Your task to perform on an android device: set the timer Image 0: 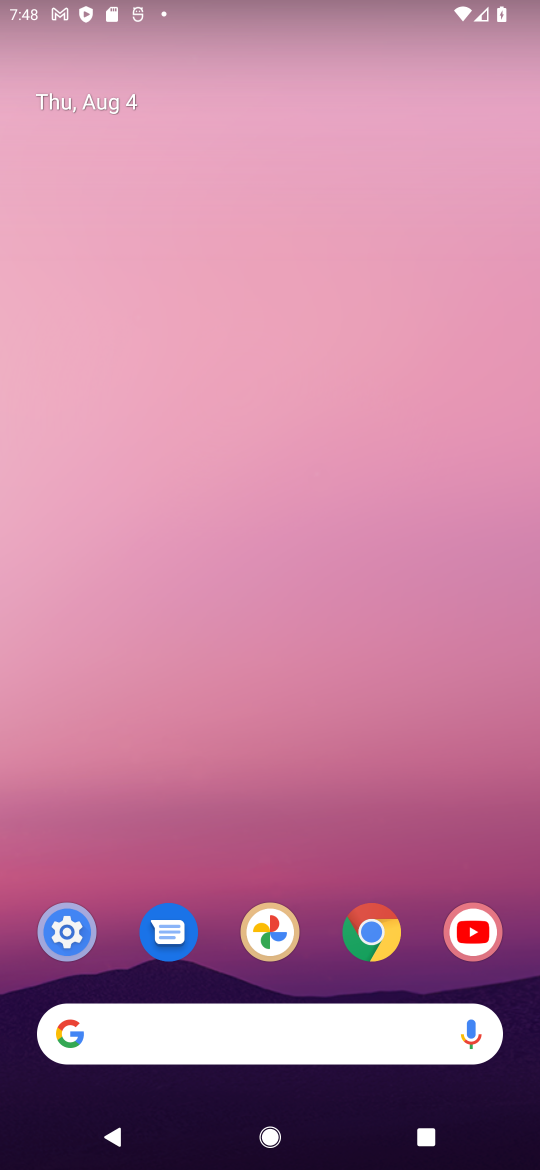
Step 0: drag from (317, 859) to (264, 1)
Your task to perform on an android device: set the timer Image 1: 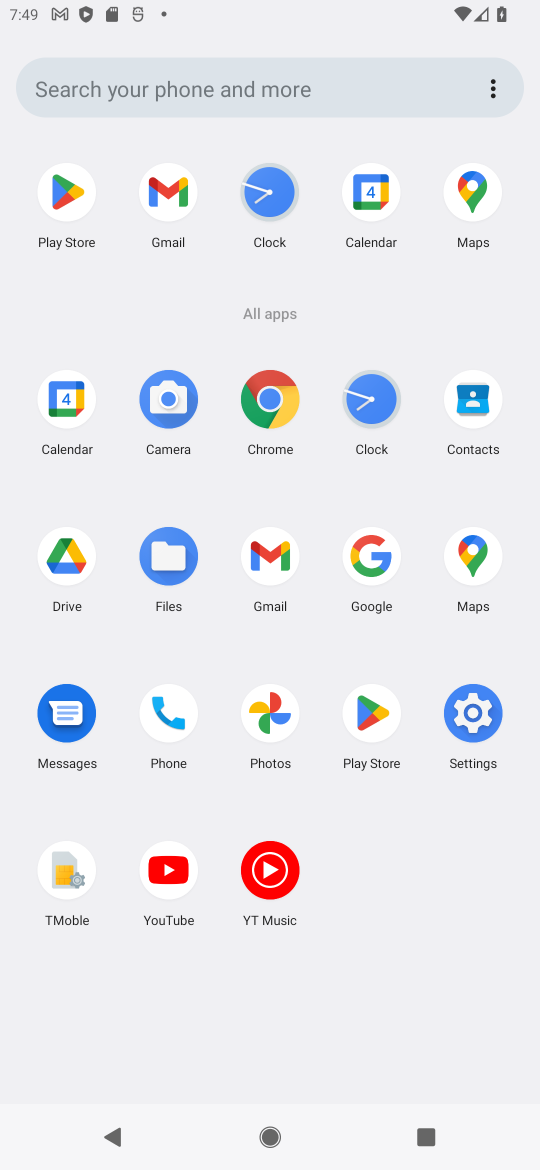
Step 1: click (369, 405)
Your task to perform on an android device: set the timer Image 2: 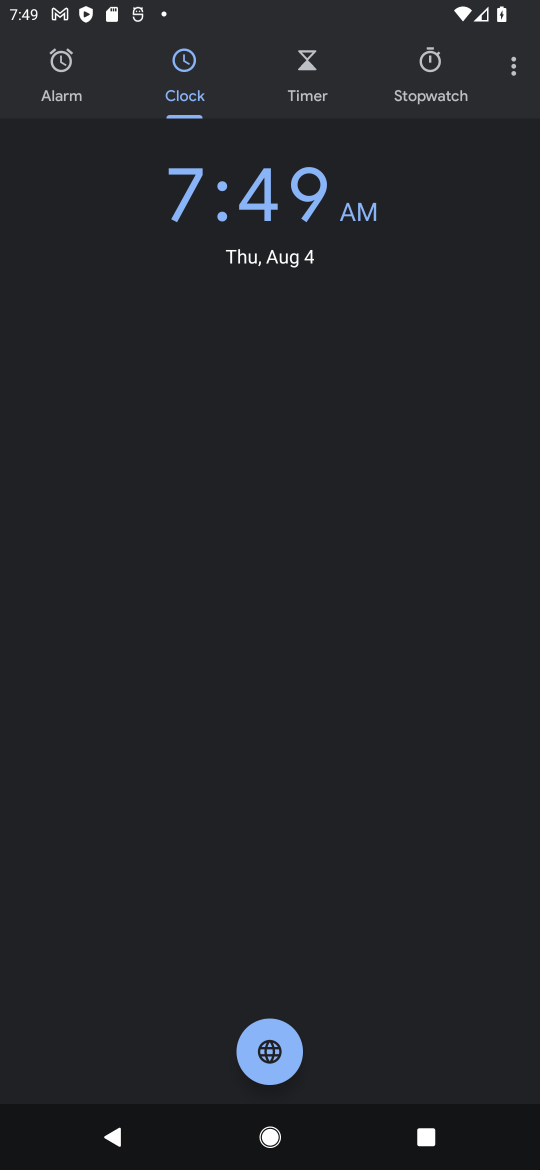
Step 2: click (314, 90)
Your task to perform on an android device: set the timer Image 3: 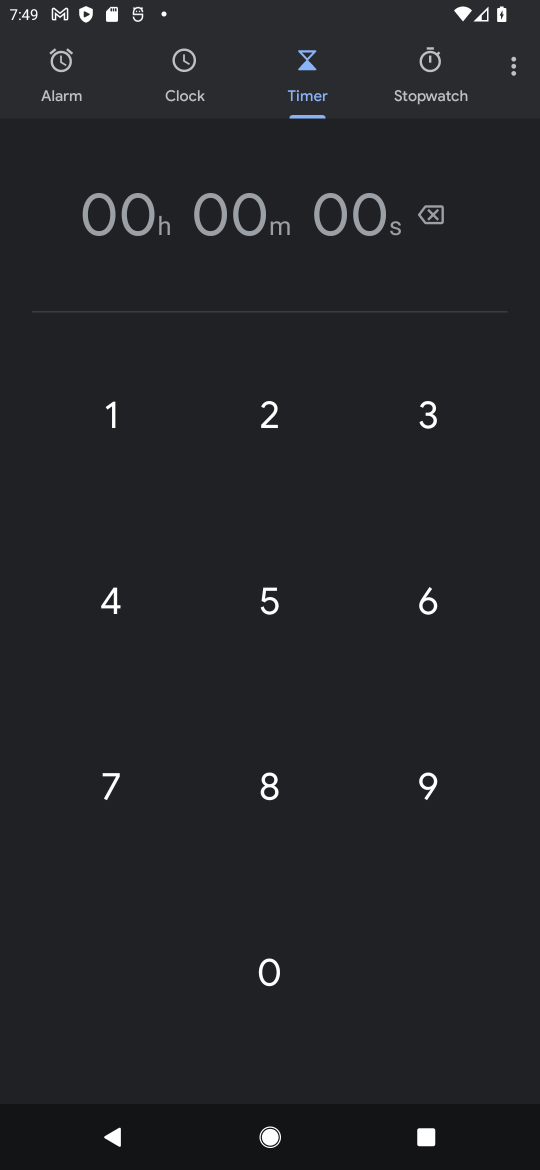
Step 3: click (259, 705)
Your task to perform on an android device: set the timer Image 4: 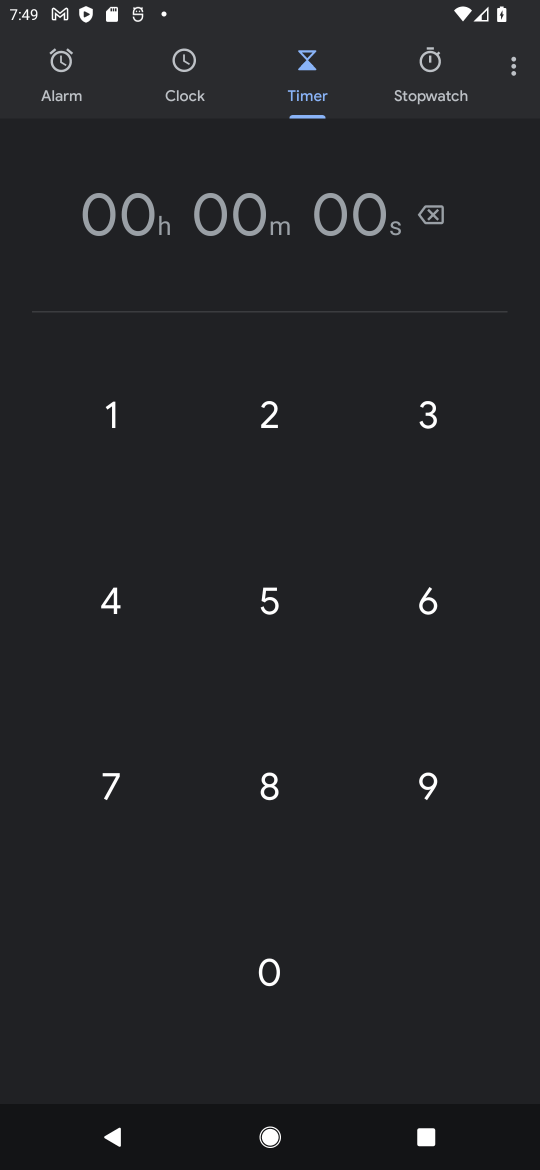
Step 4: click (259, 705)
Your task to perform on an android device: set the timer Image 5: 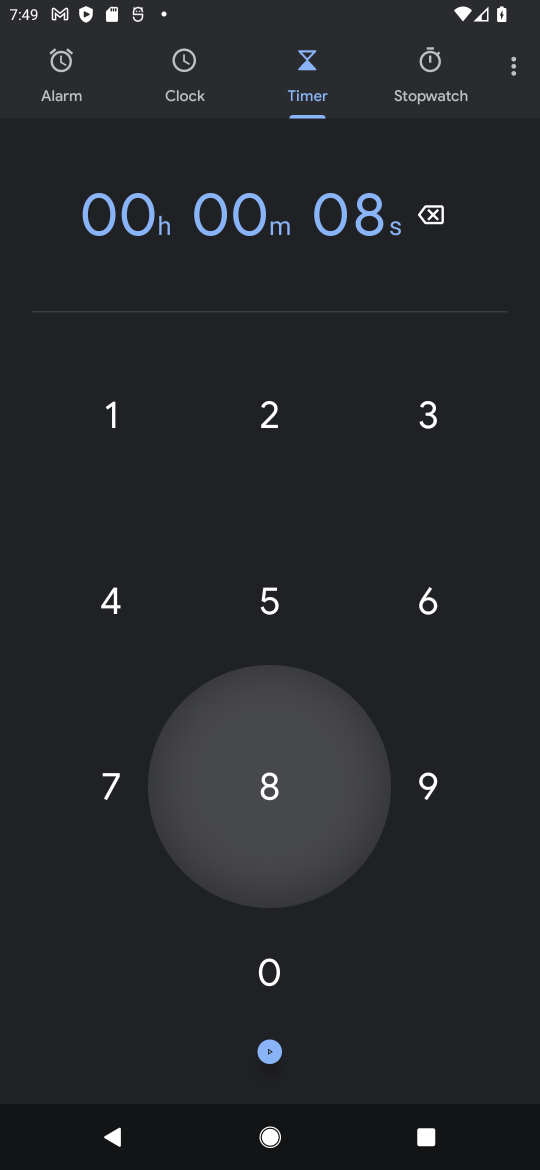
Step 5: click (259, 705)
Your task to perform on an android device: set the timer Image 6: 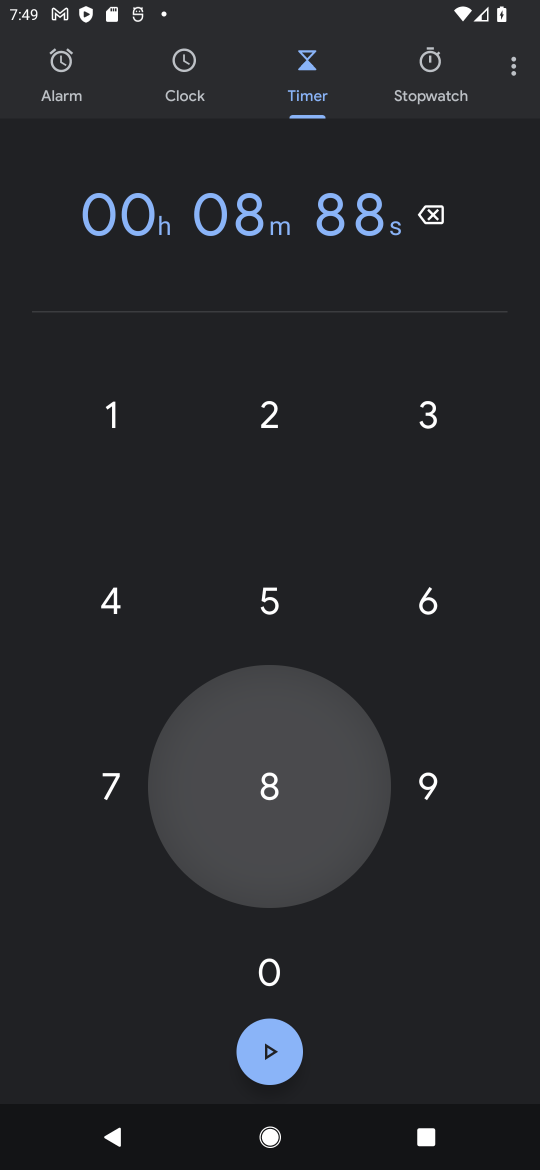
Step 6: click (259, 705)
Your task to perform on an android device: set the timer Image 7: 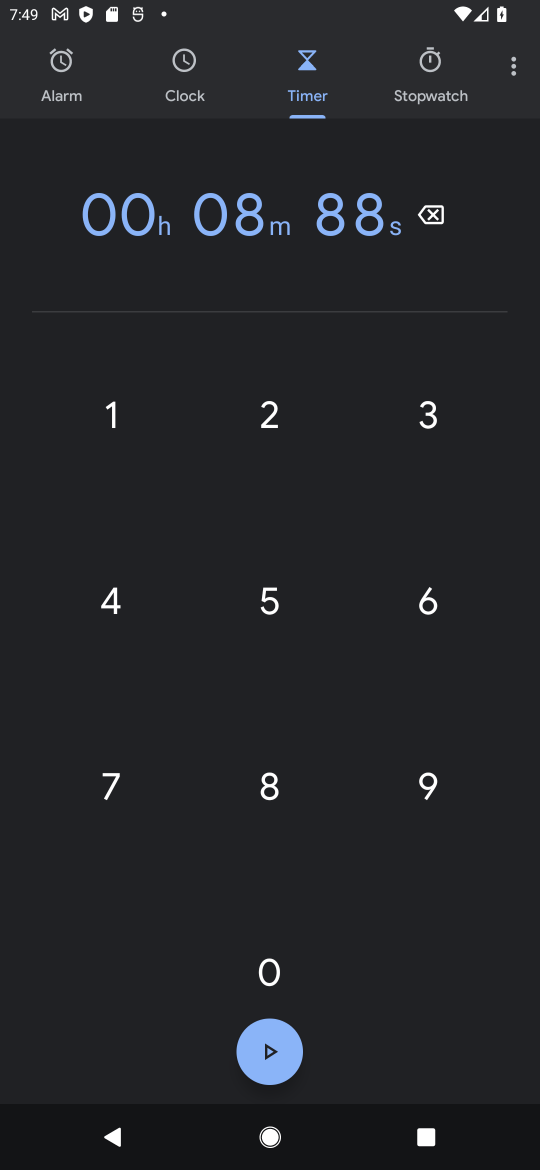
Step 7: click (259, 705)
Your task to perform on an android device: set the timer Image 8: 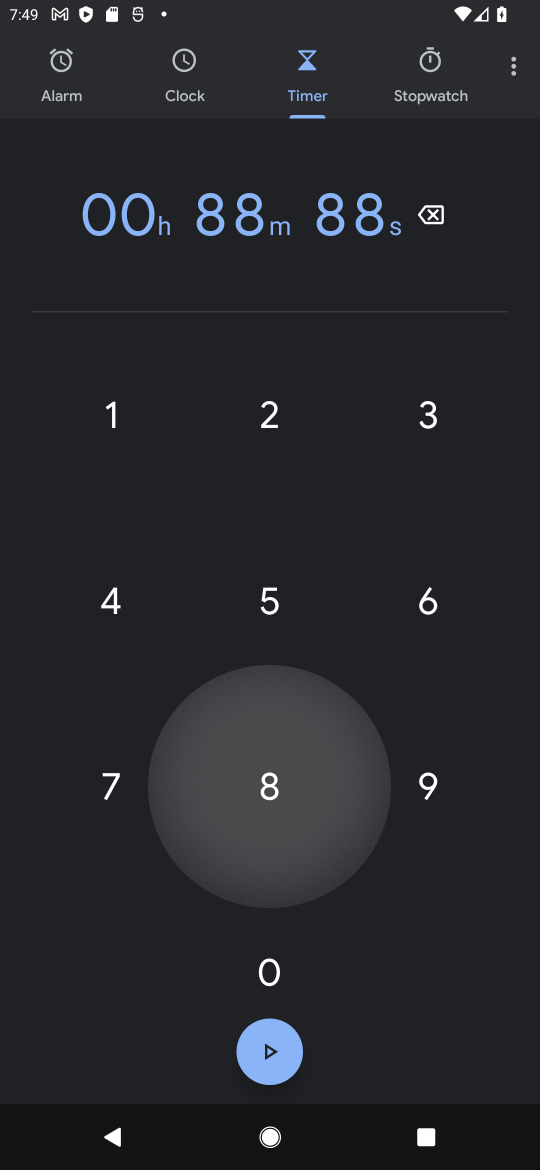
Step 8: click (259, 705)
Your task to perform on an android device: set the timer Image 9: 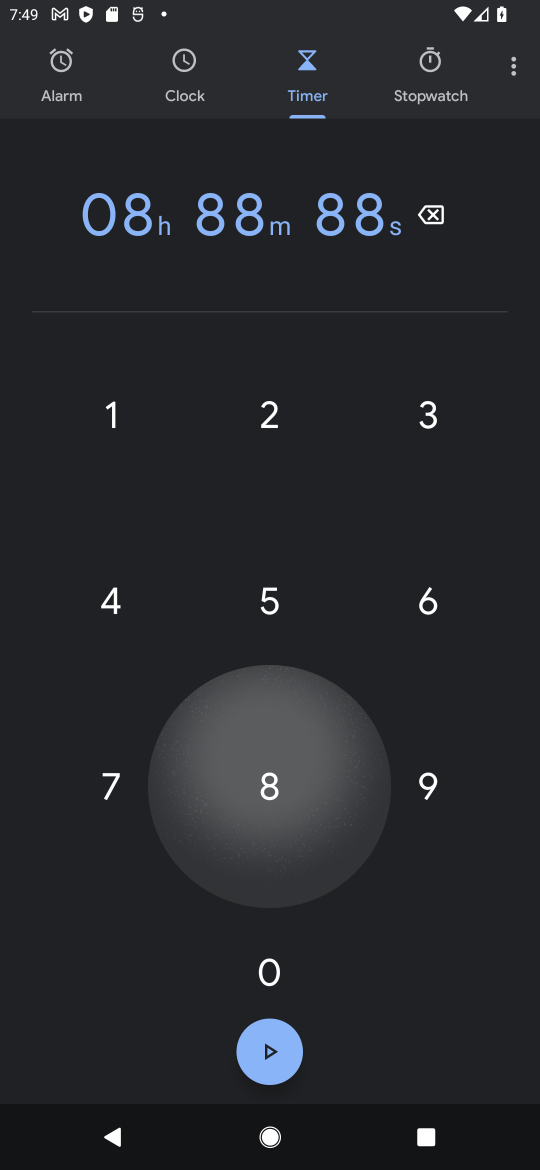
Step 9: click (259, 705)
Your task to perform on an android device: set the timer Image 10: 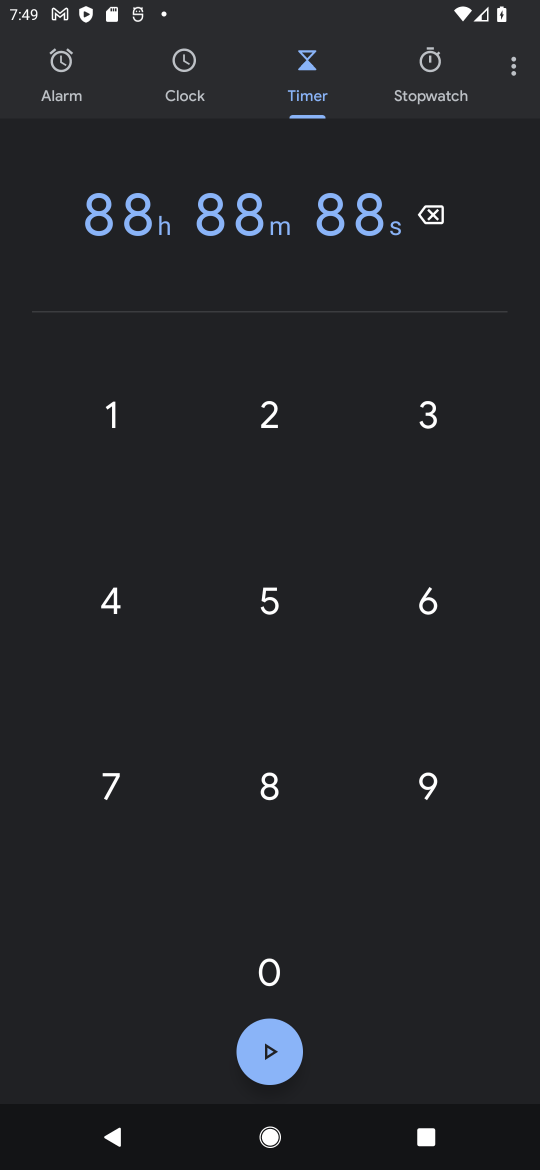
Step 10: click (280, 1055)
Your task to perform on an android device: set the timer Image 11: 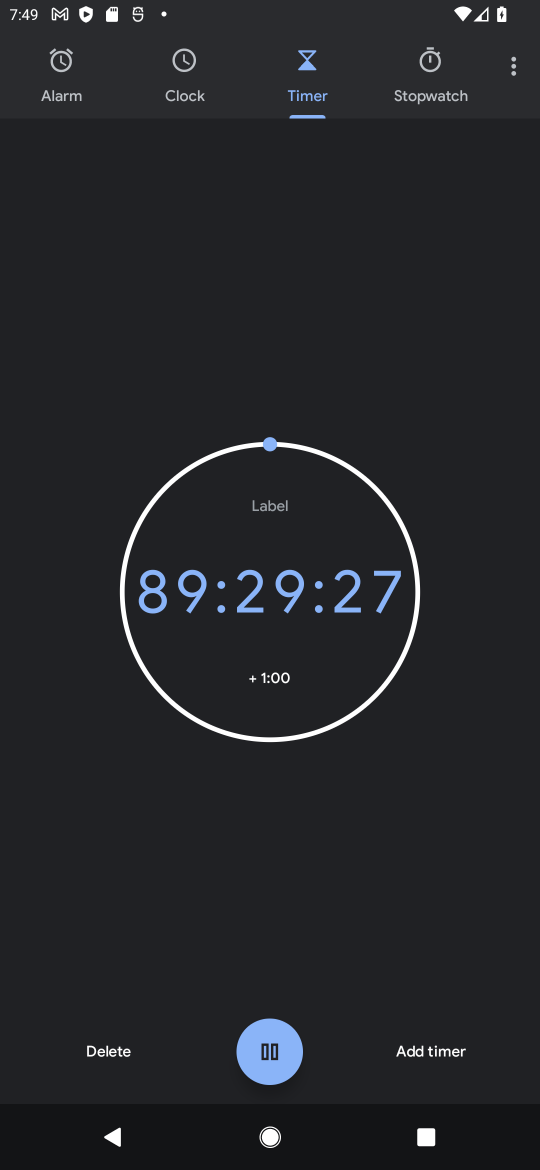
Step 11: task complete